Your task to perform on an android device: toggle javascript in the chrome app Image 0: 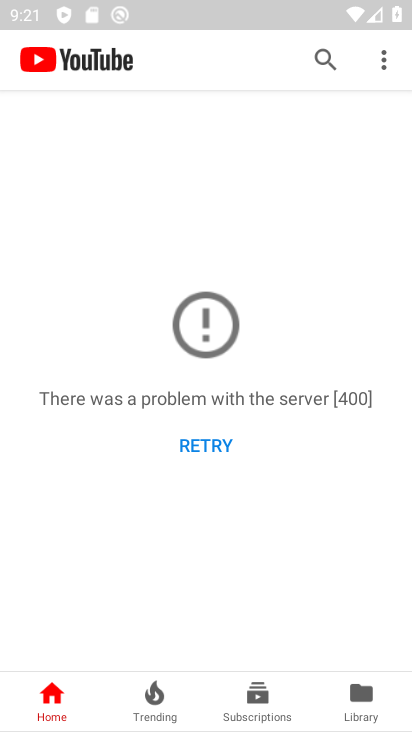
Step 0: press back button
Your task to perform on an android device: toggle javascript in the chrome app Image 1: 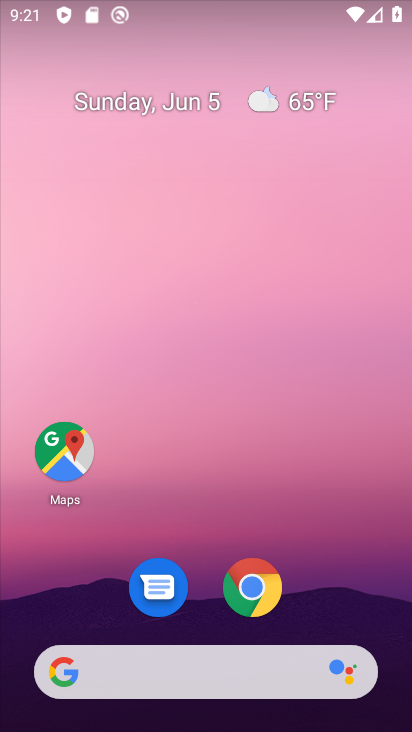
Step 1: click (263, 607)
Your task to perform on an android device: toggle javascript in the chrome app Image 2: 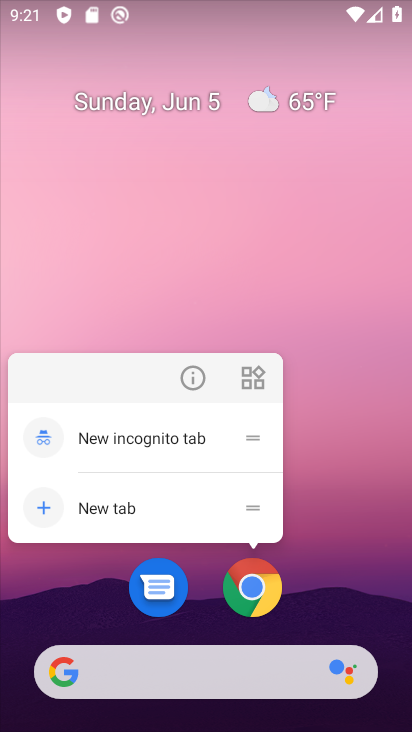
Step 2: click (250, 597)
Your task to perform on an android device: toggle javascript in the chrome app Image 3: 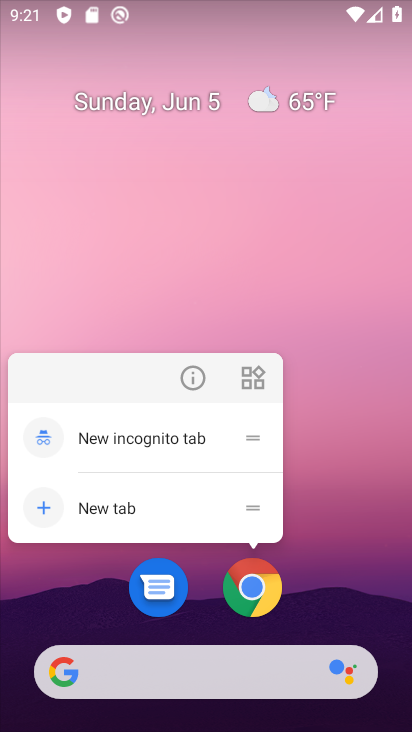
Step 3: click (249, 585)
Your task to perform on an android device: toggle javascript in the chrome app Image 4: 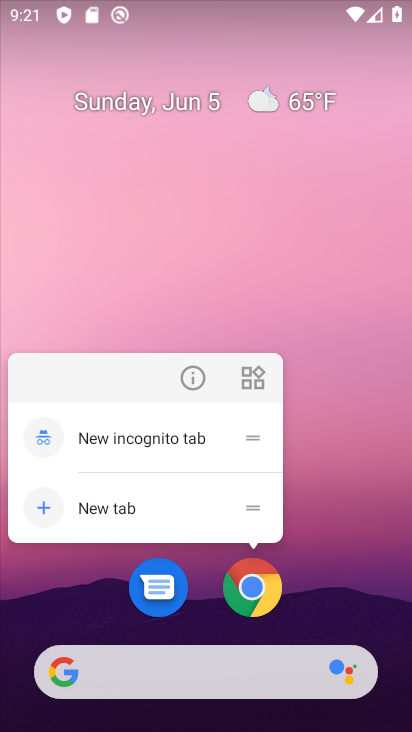
Step 4: click (254, 581)
Your task to perform on an android device: toggle javascript in the chrome app Image 5: 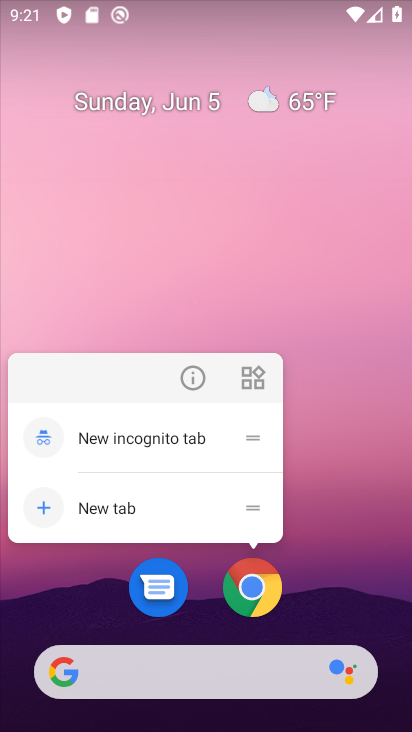
Step 5: click (263, 602)
Your task to perform on an android device: toggle javascript in the chrome app Image 6: 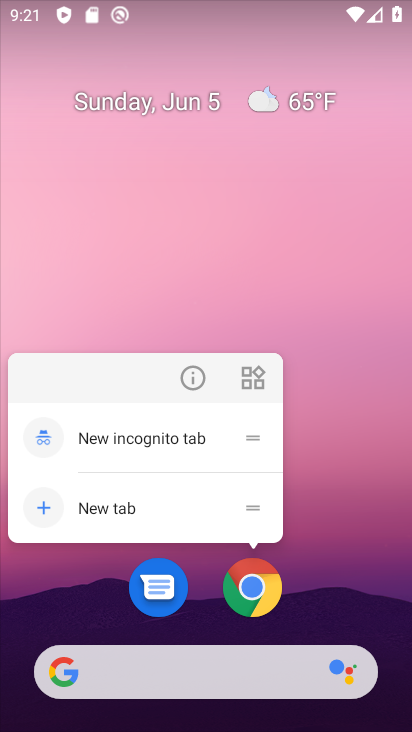
Step 6: click (273, 594)
Your task to perform on an android device: toggle javascript in the chrome app Image 7: 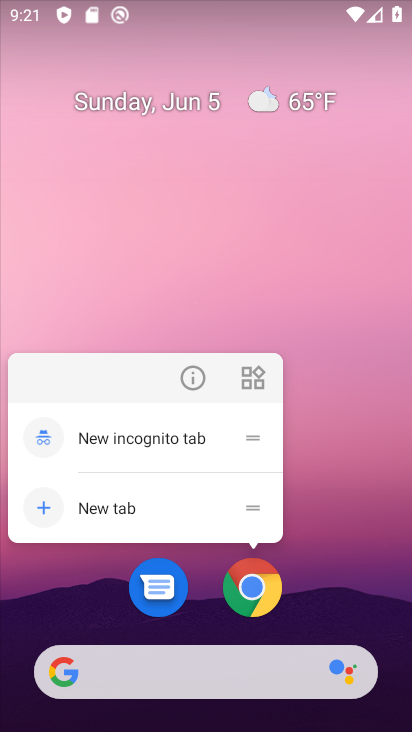
Step 7: click (267, 565)
Your task to perform on an android device: toggle javascript in the chrome app Image 8: 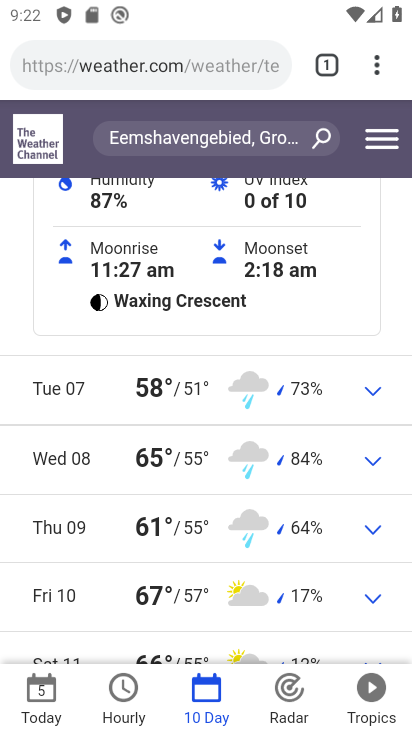
Step 8: drag from (390, 68) to (253, 646)
Your task to perform on an android device: toggle javascript in the chrome app Image 9: 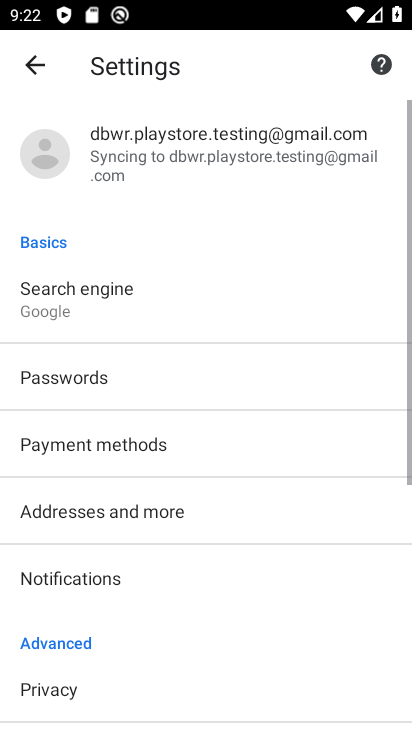
Step 9: drag from (253, 646) to (309, 305)
Your task to perform on an android device: toggle javascript in the chrome app Image 10: 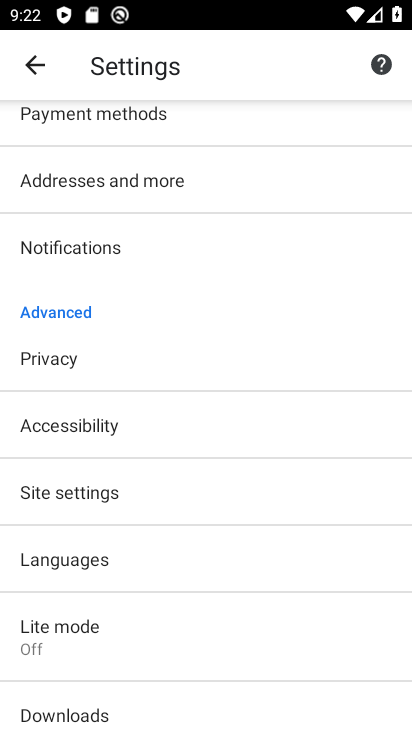
Step 10: click (151, 488)
Your task to perform on an android device: toggle javascript in the chrome app Image 11: 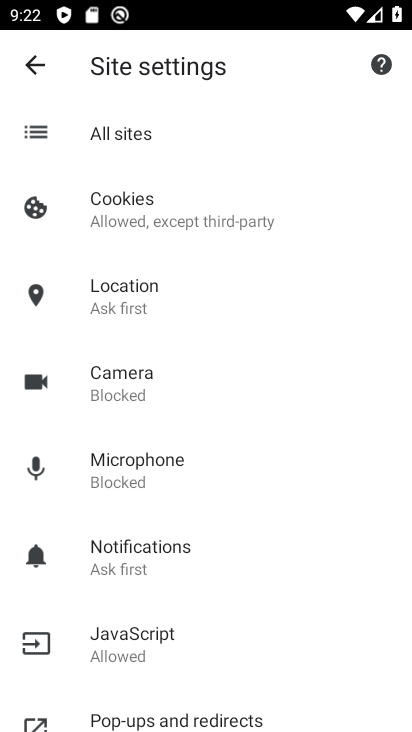
Step 11: drag from (126, 640) to (258, 260)
Your task to perform on an android device: toggle javascript in the chrome app Image 12: 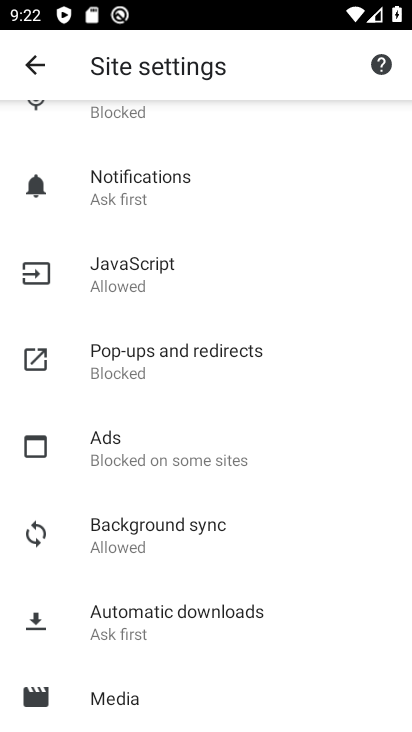
Step 12: drag from (233, 231) to (196, 713)
Your task to perform on an android device: toggle javascript in the chrome app Image 13: 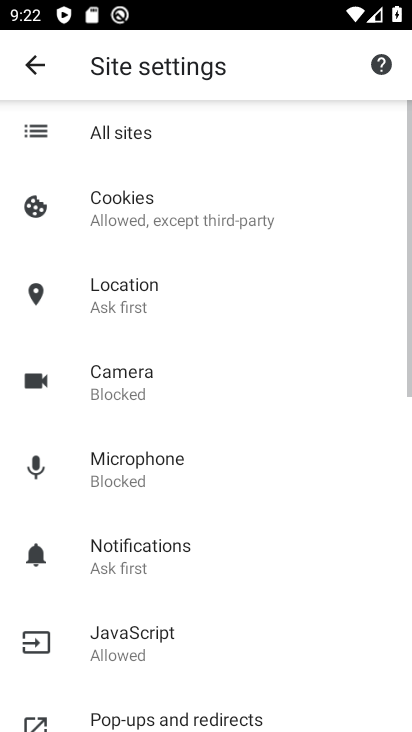
Step 13: drag from (138, 646) to (174, 489)
Your task to perform on an android device: toggle javascript in the chrome app Image 14: 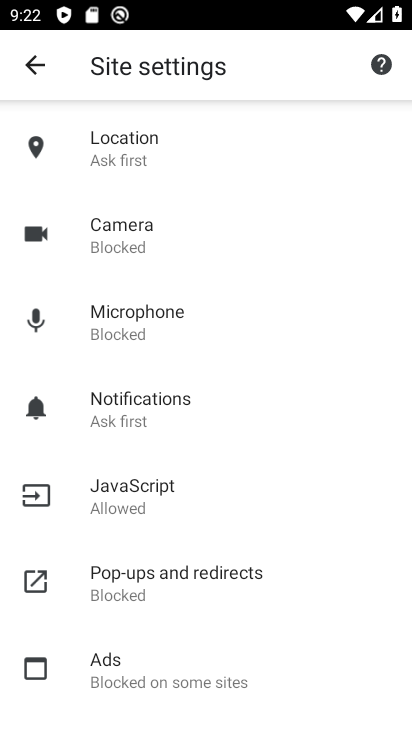
Step 14: click (166, 509)
Your task to perform on an android device: toggle javascript in the chrome app Image 15: 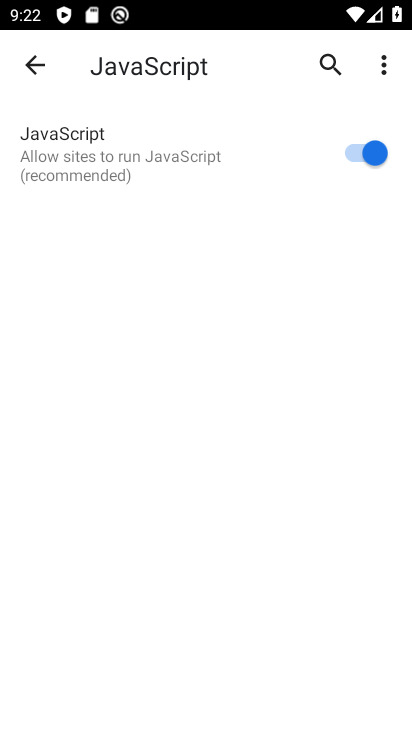
Step 15: click (363, 157)
Your task to perform on an android device: toggle javascript in the chrome app Image 16: 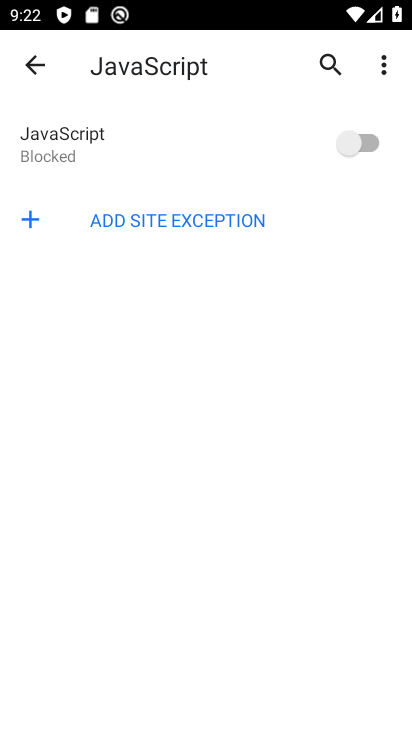
Step 16: task complete